Your task to perform on an android device: turn vacation reply on in the gmail app Image 0: 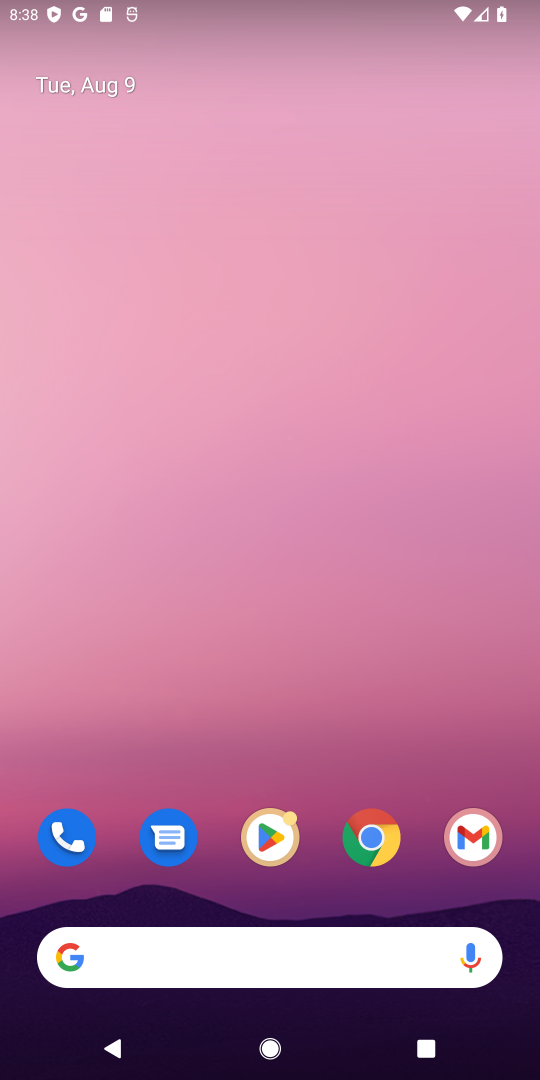
Step 0: drag from (323, 884) to (320, 180)
Your task to perform on an android device: turn vacation reply on in the gmail app Image 1: 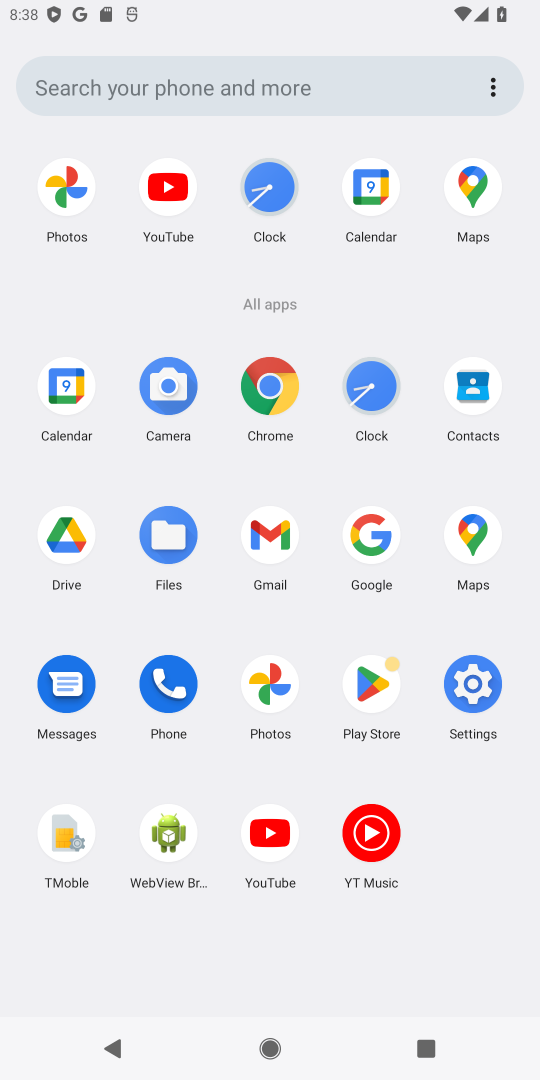
Step 1: click (276, 547)
Your task to perform on an android device: turn vacation reply on in the gmail app Image 2: 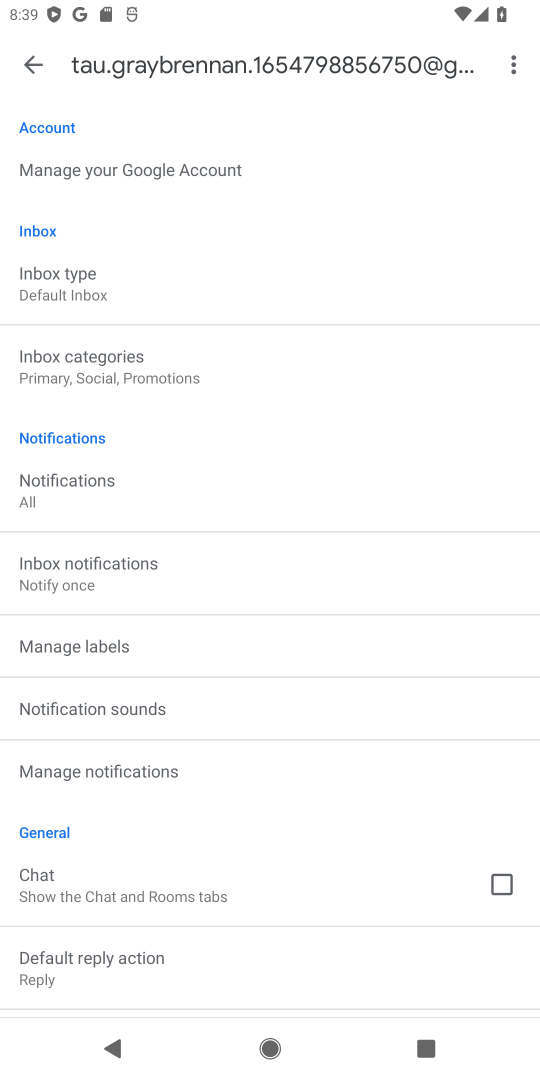
Step 2: task complete